Your task to perform on an android device: turn notification dots off Image 0: 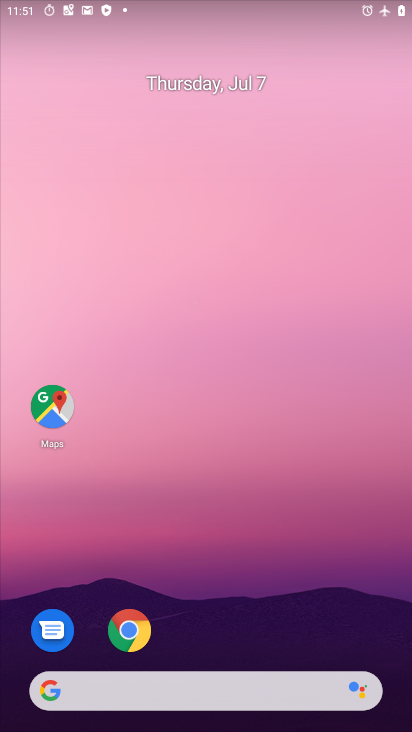
Step 0: drag from (194, 638) to (170, 189)
Your task to perform on an android device: turn notification dots off Image 1: 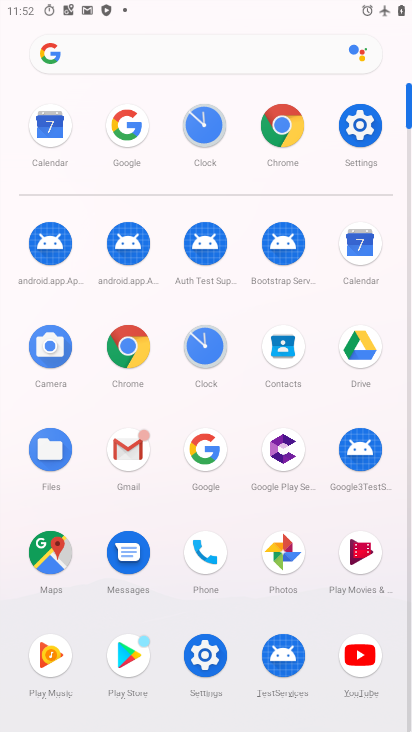
Step 1: click (342, 124)
Your task to perform on an android device: turn notification dots off Image 2: 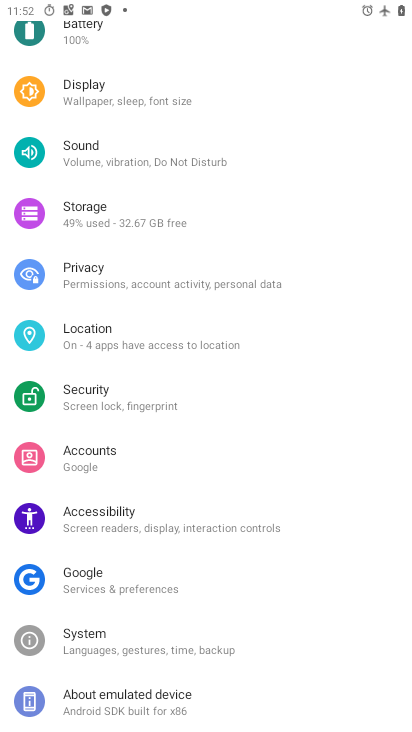
Step 2: drag from (203, 233) to (223, 581)
Your task to perform on an android device: turn notification dots off Image 3: 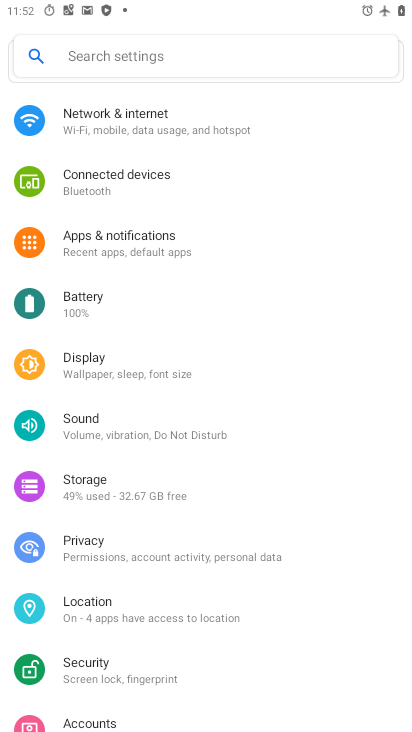
Step 3: click (188, 250)
Your task to perform on an android device: turn notification dots off Image 4: 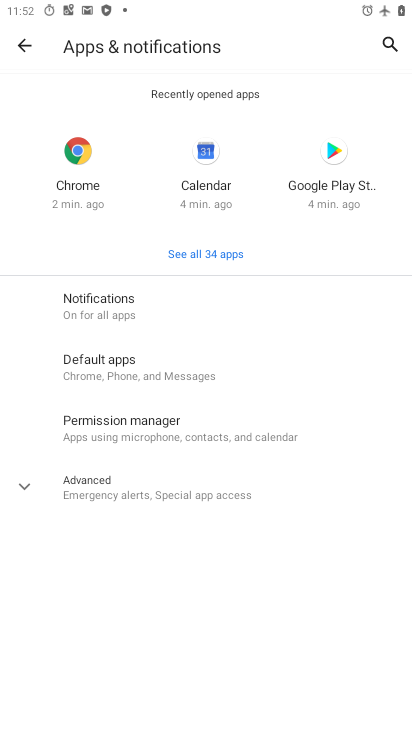
Step 4: click (155, 322)
Your task to perform on an android device: turn notification dots off Image 5: 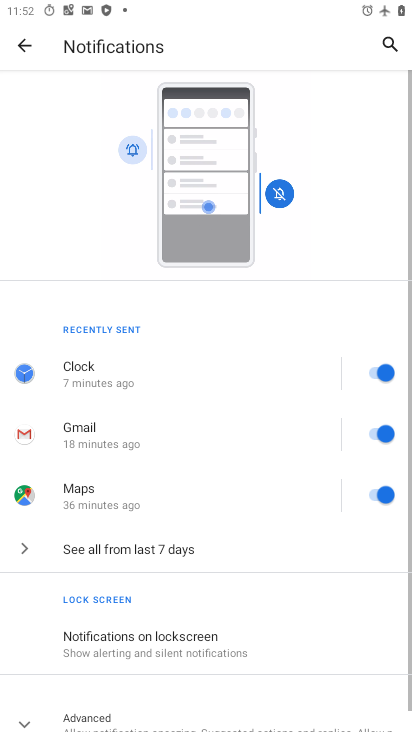
Step 5: drag from (261, 625) to (265, 353)
Your task to perform on an android device: turn notification dots off Image 6: 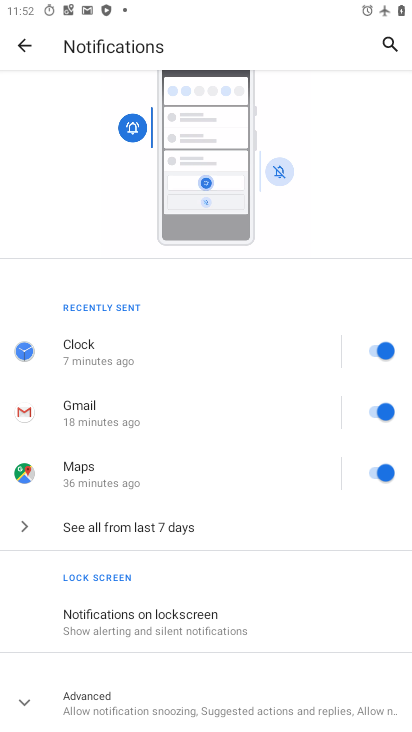
Step 6: click (191, 693)
Your task to perform on an android device: turn notification dots off Image 7: 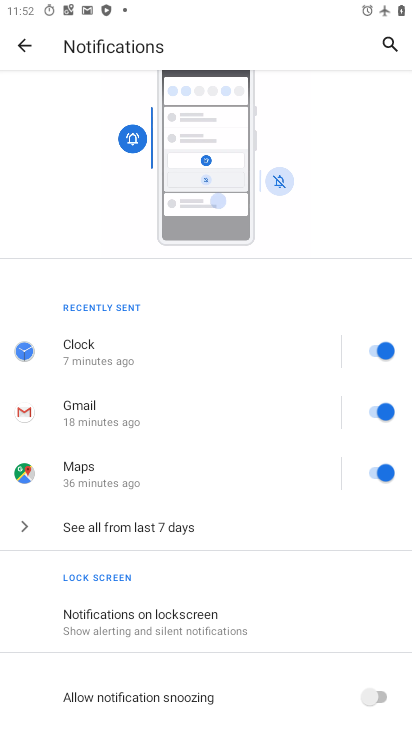
Step 7: drag from (218, 661) to (253, 249)
Your task to perform on an android device: turn notification dots off Image 8: 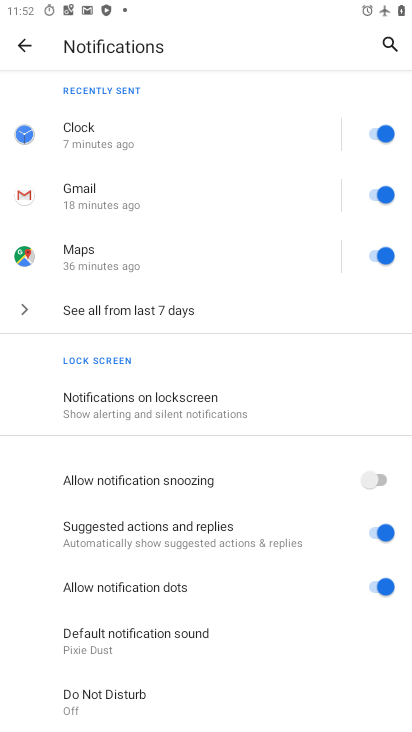
Step 8: click (370, 587)
Your task to perform on an android device: turn notification dots off Image 9: 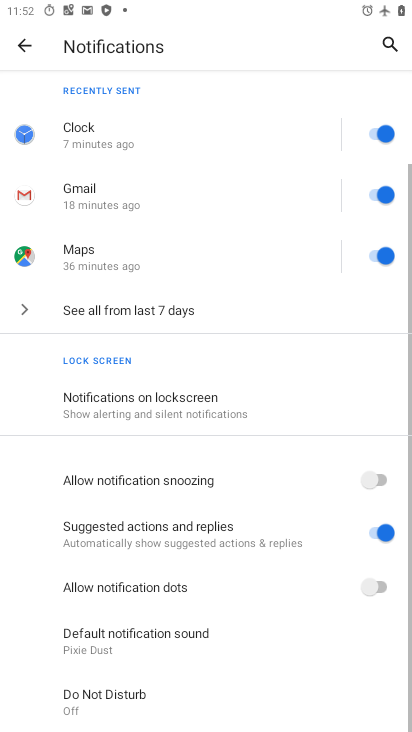
Step 9: task complete